Your task to perform on an android device: Open the stopwatch Image 0: 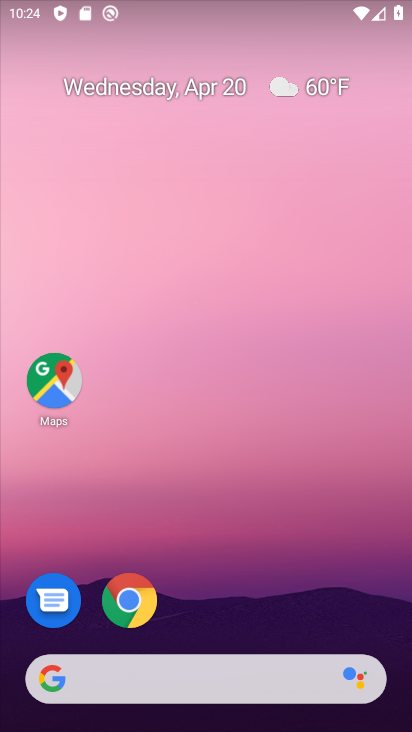
Step 0: drag from (213, 634) to (176, 82)
Your task to perform on an android device: Open the stopwatch Image 1: 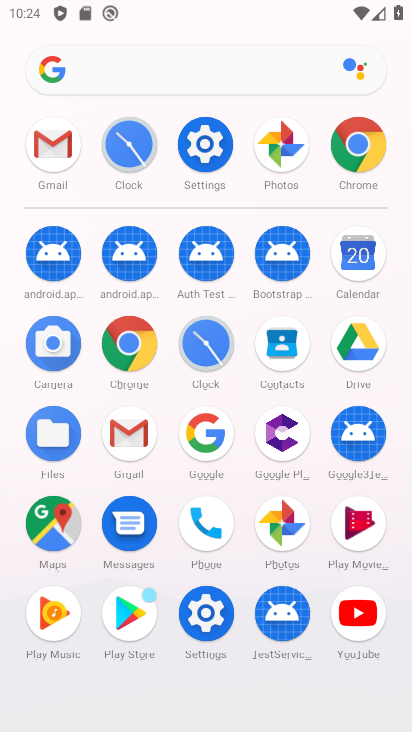
Step 1: click (131, 140)
Your task to perform on an android device: Open the stopwatch Image 2: 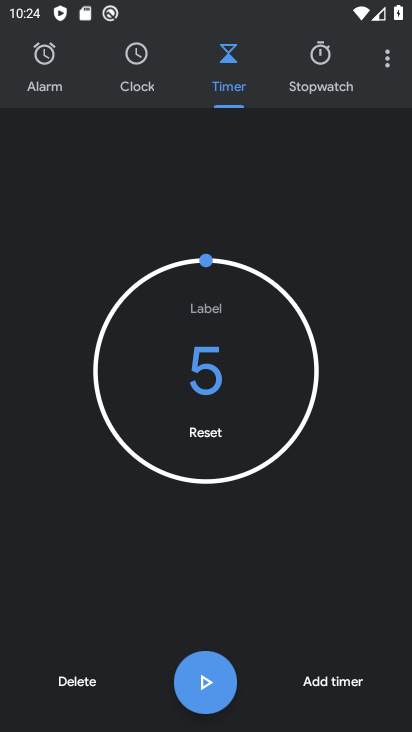
Step 2: click (309, 69)
Your task to perform on an android device: Open the stopwatch Image 3: 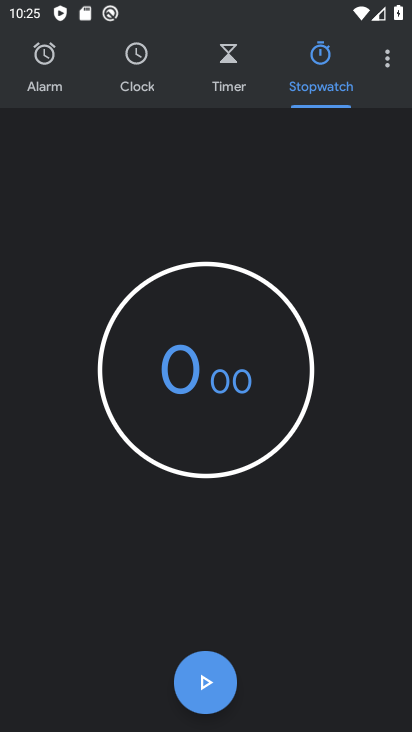
Step 3: click (204, 654)
Your task to perform on an android device: Open the stopwatch Image 4: 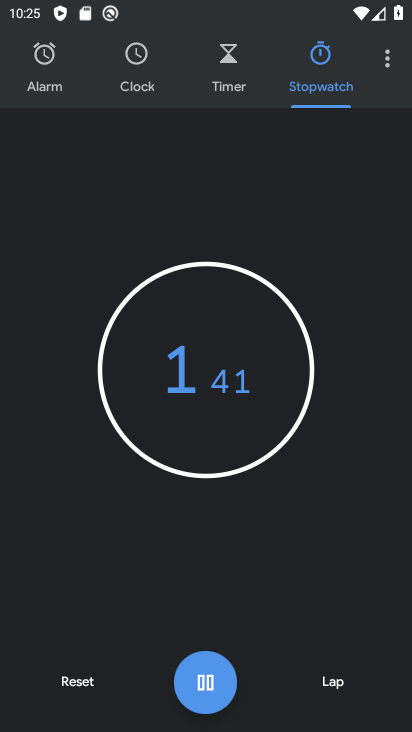
Step 4: task complete